Your task to perform on an android device: View the shopping cart on ebay. Search for logitech g pro on ebay, select the first entry, add it to the cart, then select checkout. Image 0: 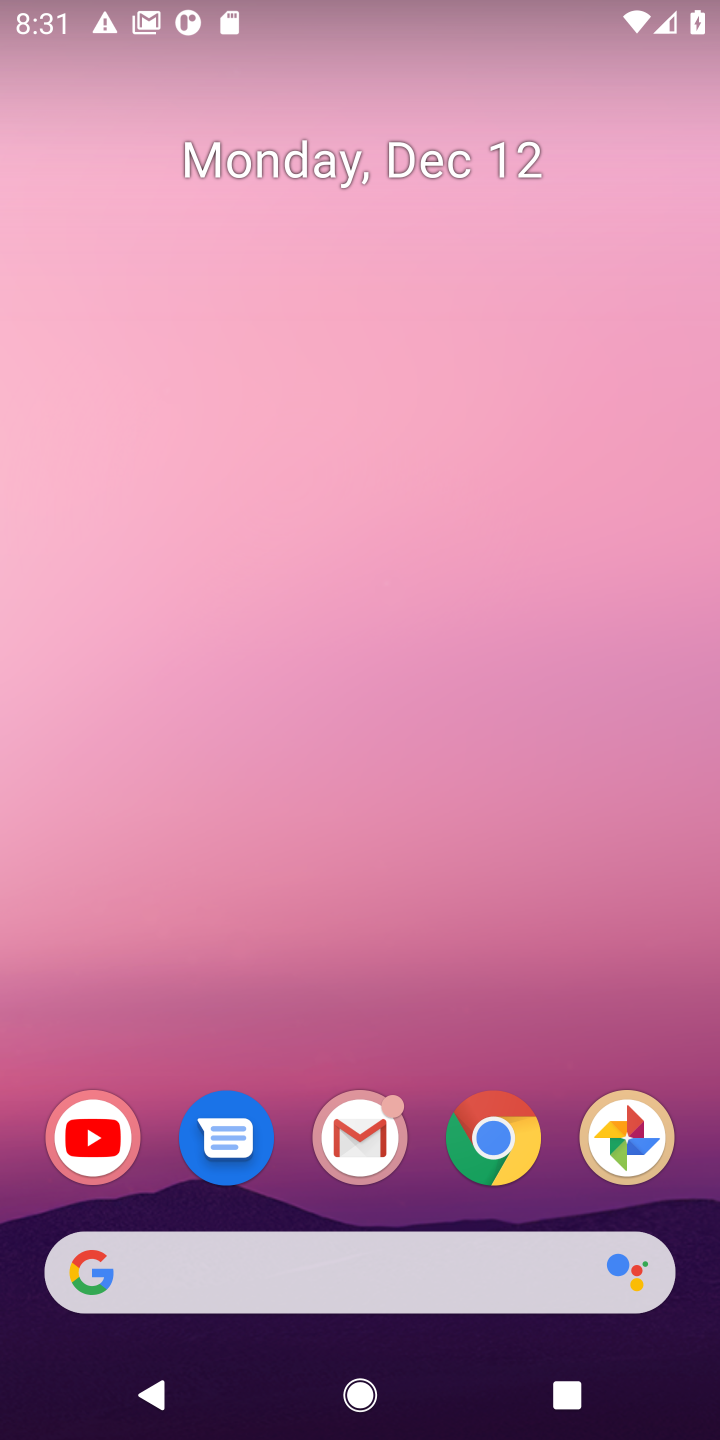
Step 0: drag from (286, 1199) to (258, 294)
Your task to perform on an android device: View the shopping cart on ebay. Search for logitech g pro on ebay, select the first entry, add it to the cart, then select checkout. Image 1: 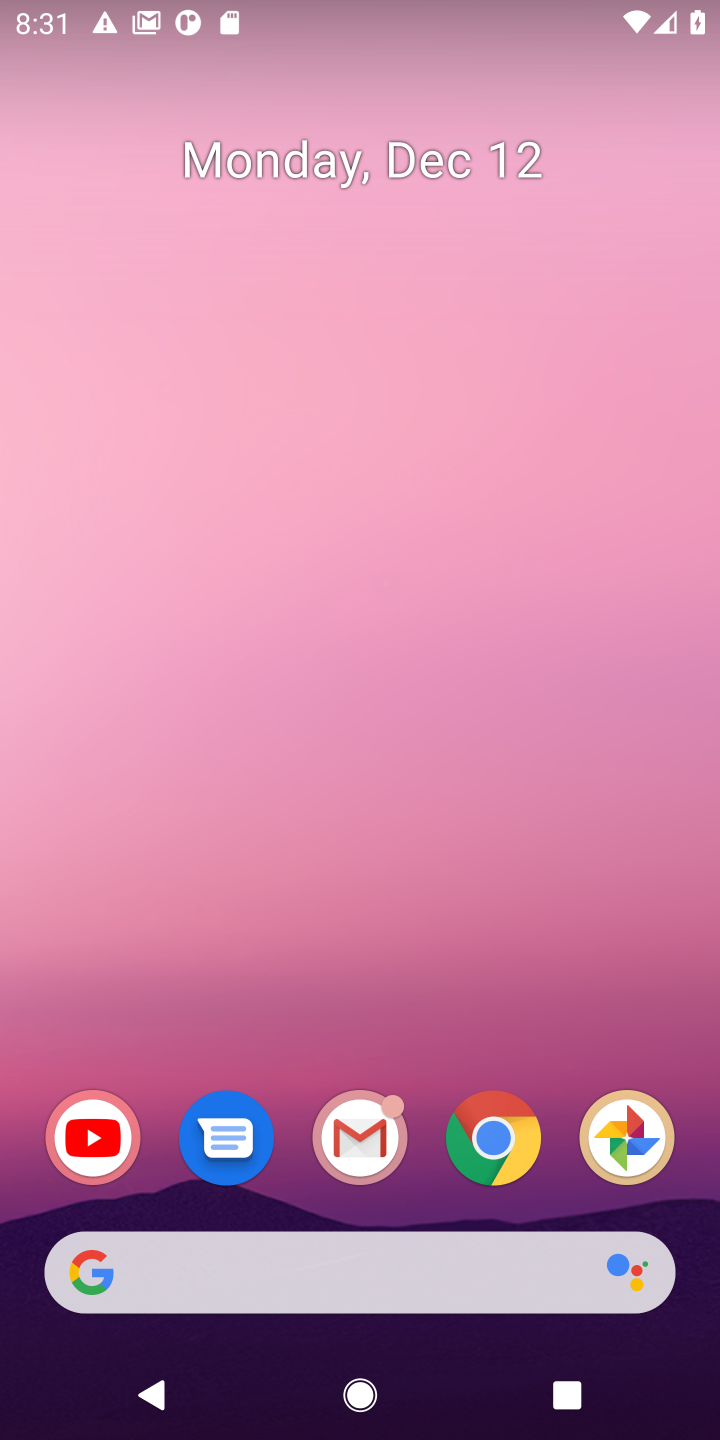
Step 1: drag from (268, 1183) to (503, 128)
Your task to perform on an android device: View the shopping cart on ebay. Search for logitech g pro on ebay, select the first entry, add it to the cart, then select checkout. Image 2: 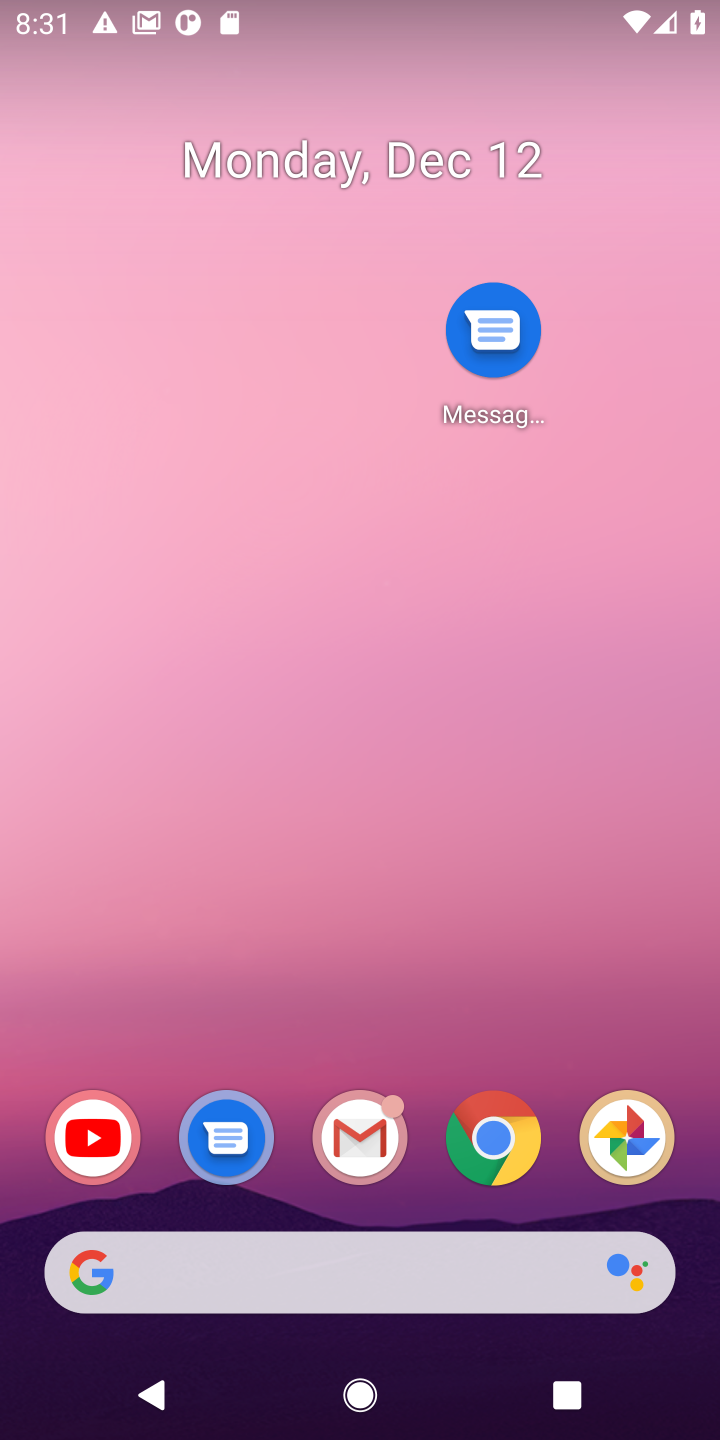
Step 2: drag from (324, 1053) to (357, 277)
Your task to perform on an android device: View the shopping cart on ebay. Search for logitech g pro on ebay, select the first entry, add it to the cart, then select checkout. Image 3: 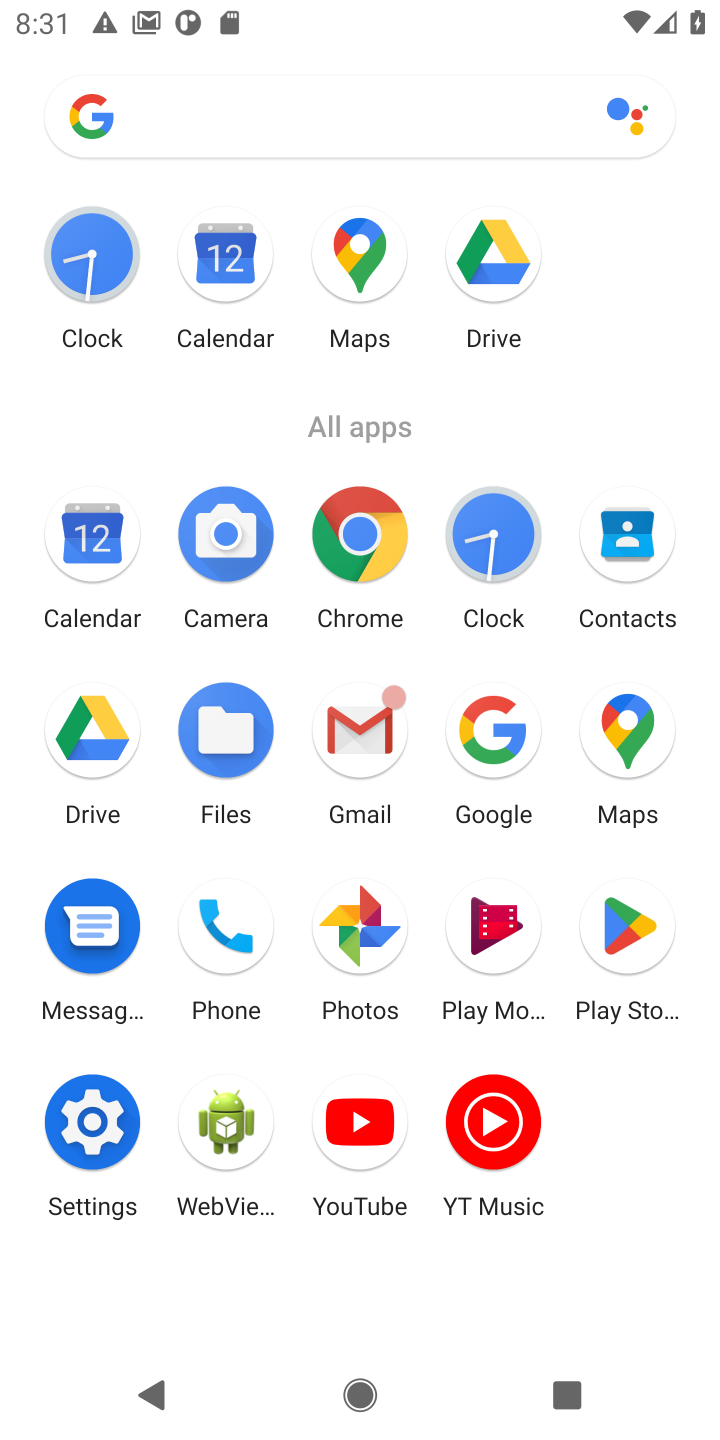
Step 3: click (484, 715)
Your task to perform on an android device: View the shopping cart on ebay. Search for logitech g pro on ebay, select the first entry, add it to the cart, then select checkout. Image 4: 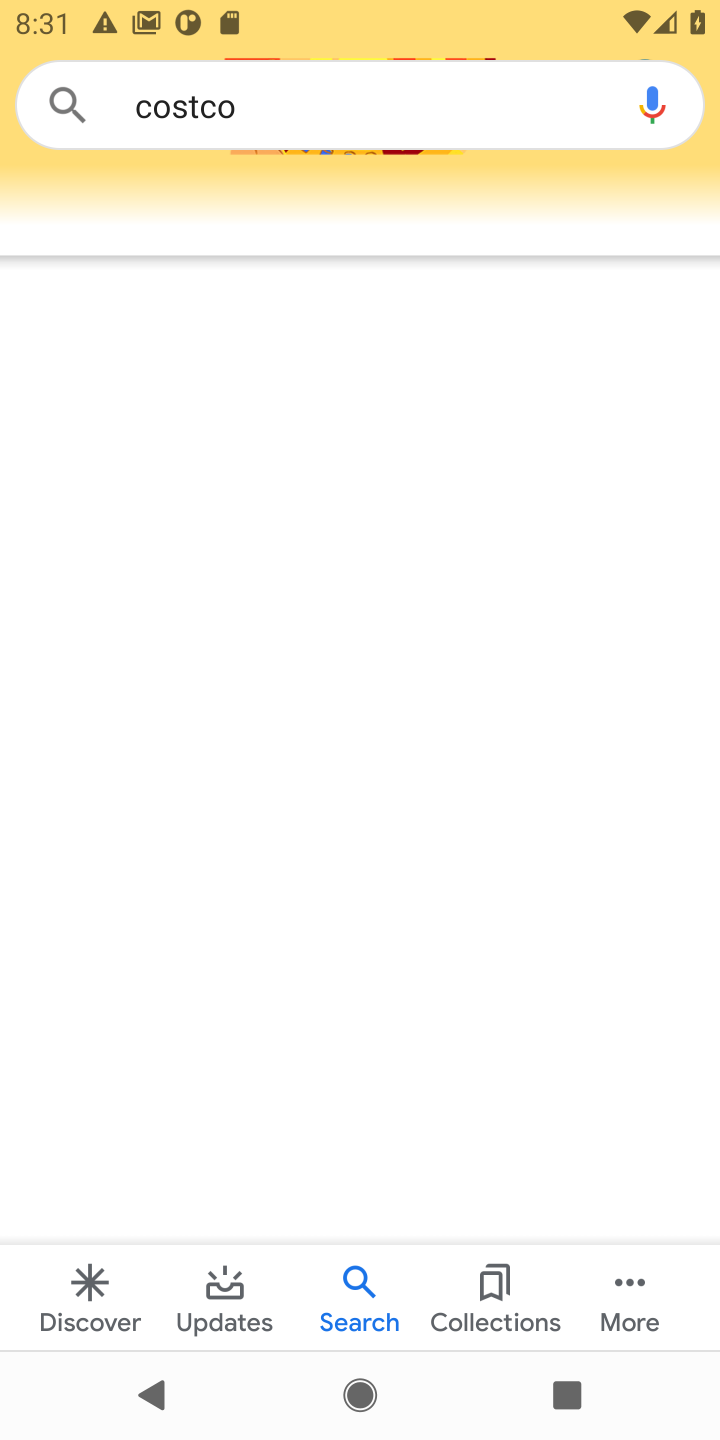
Step 4: click (202, 103)
Your task to perform on an android device: View the shopping cart on ebay. Search for logitech g pro on ebay, select the first entry, add it to the cart, then select checkout. Image 5: 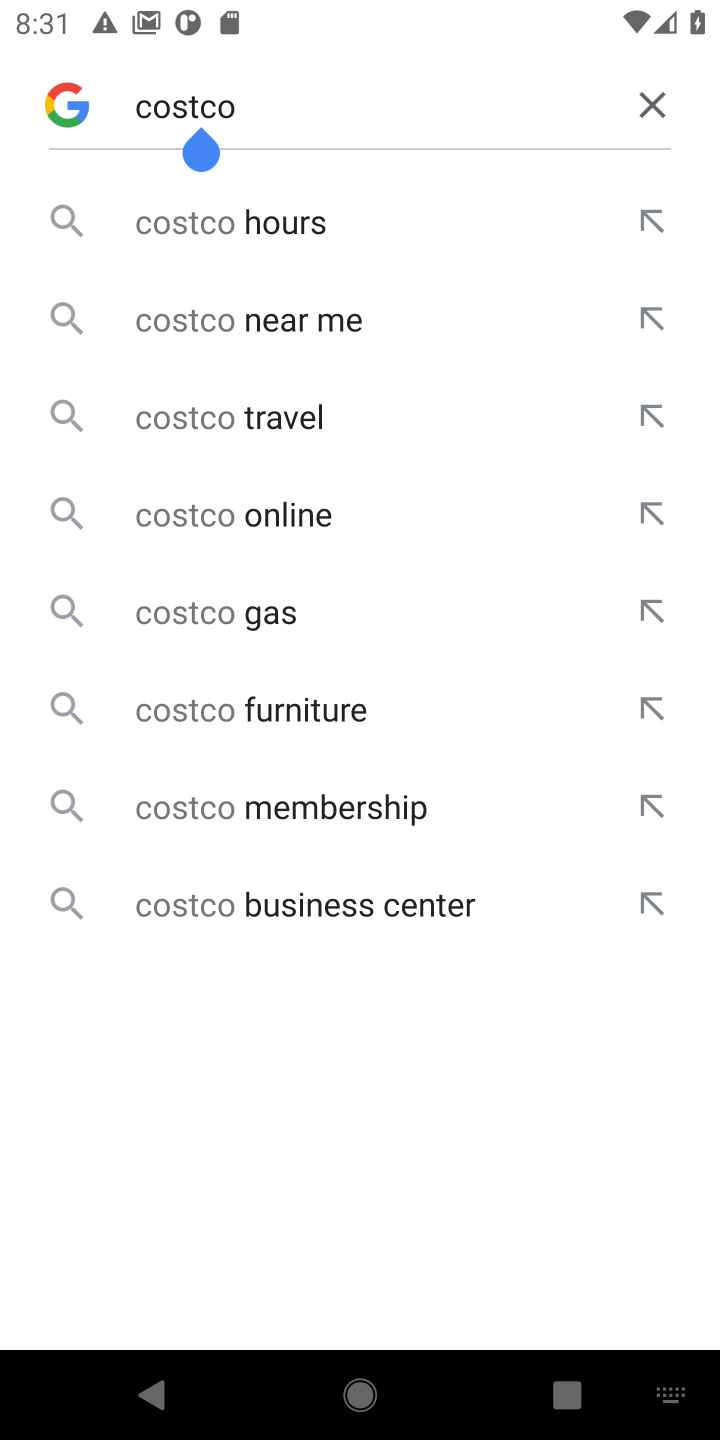
Step 5: click (646, 104)
Your task to perform on an android device: View the shopping cart on ebay. Search for logitech g pro on ebay, select the first entry, add it to the cart, then select checkout. Image 6: 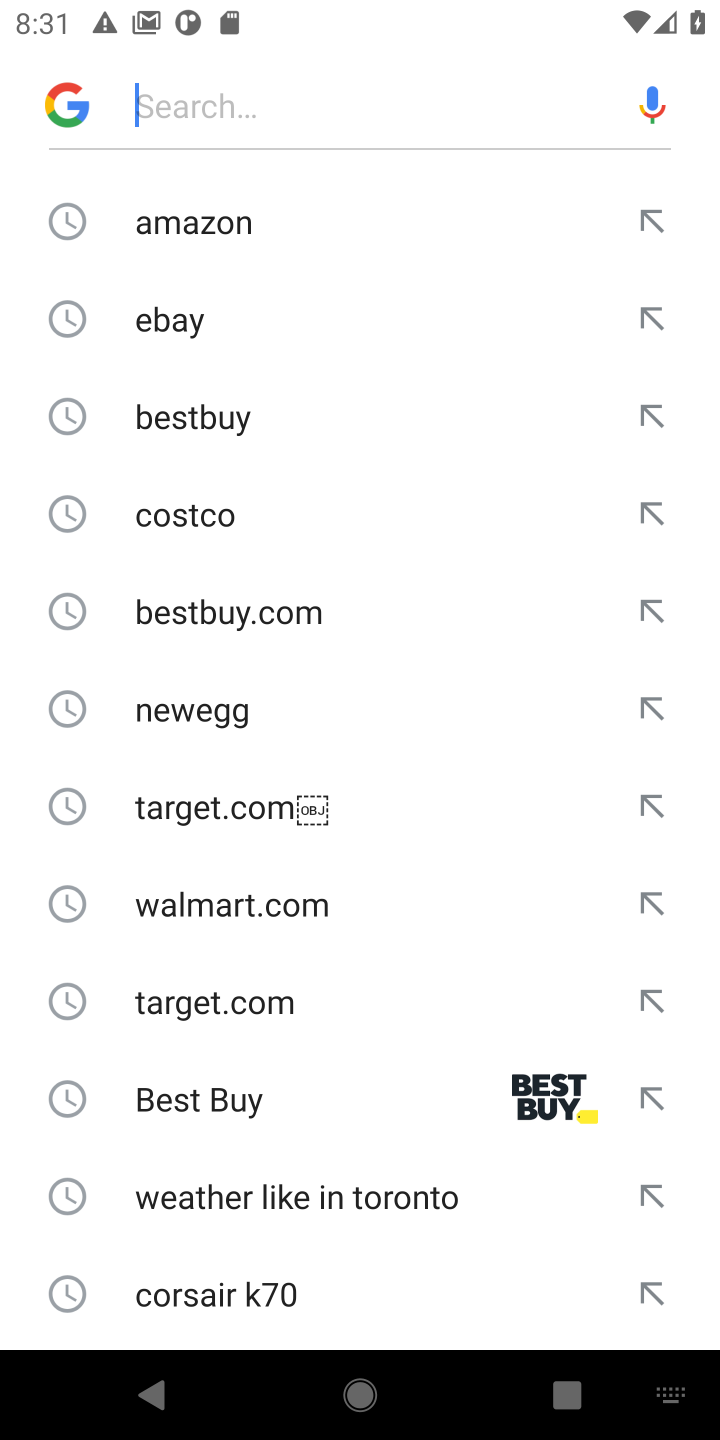
Step 6: click (158, 304)
Your task to perform on an android device: View the shopping cart on ebay. Search for logitech g pro on ebay, select the first entry, add it to the cart, then select checkout. Image 7: 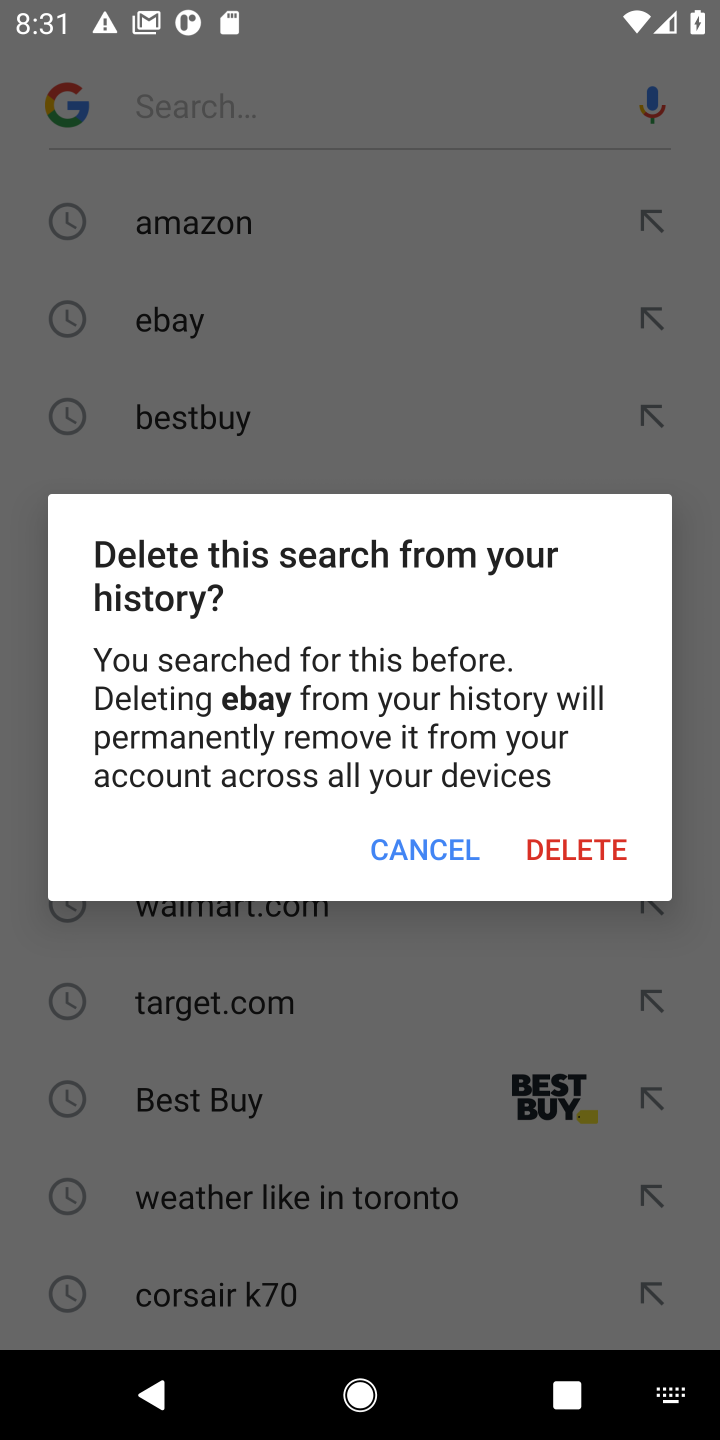
Step 7: click (401, 856)
Your task to perform on an android device: View the shopping cart on ebay. Search for logitech g pro on ebay, select the first entry, add it to the cart, then select checkout. Image 8: 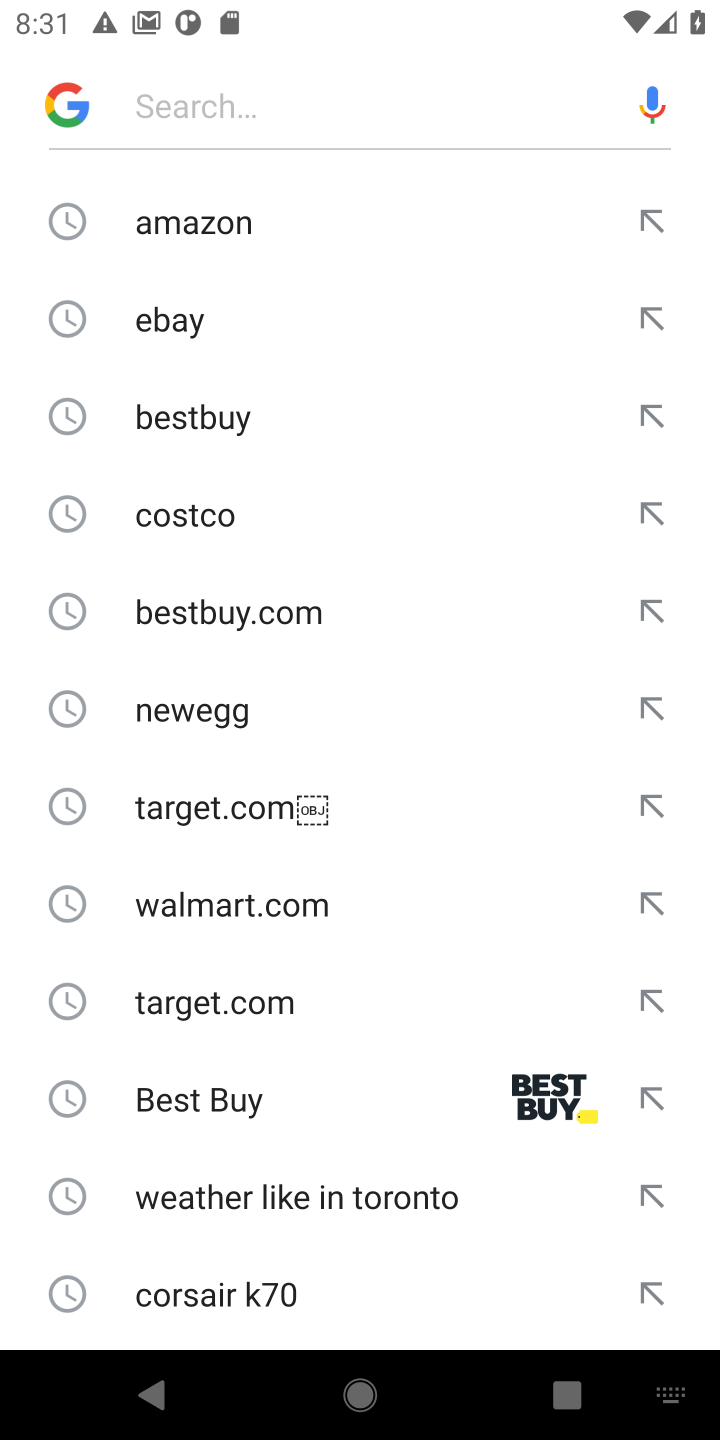
Step 8: click (162, 330)
Your task to perform on an android device: View the shopping cart on ebay. Search for logitech g pro on ebay, select the first entry, add it to the cart, then select checkout. Image 9: 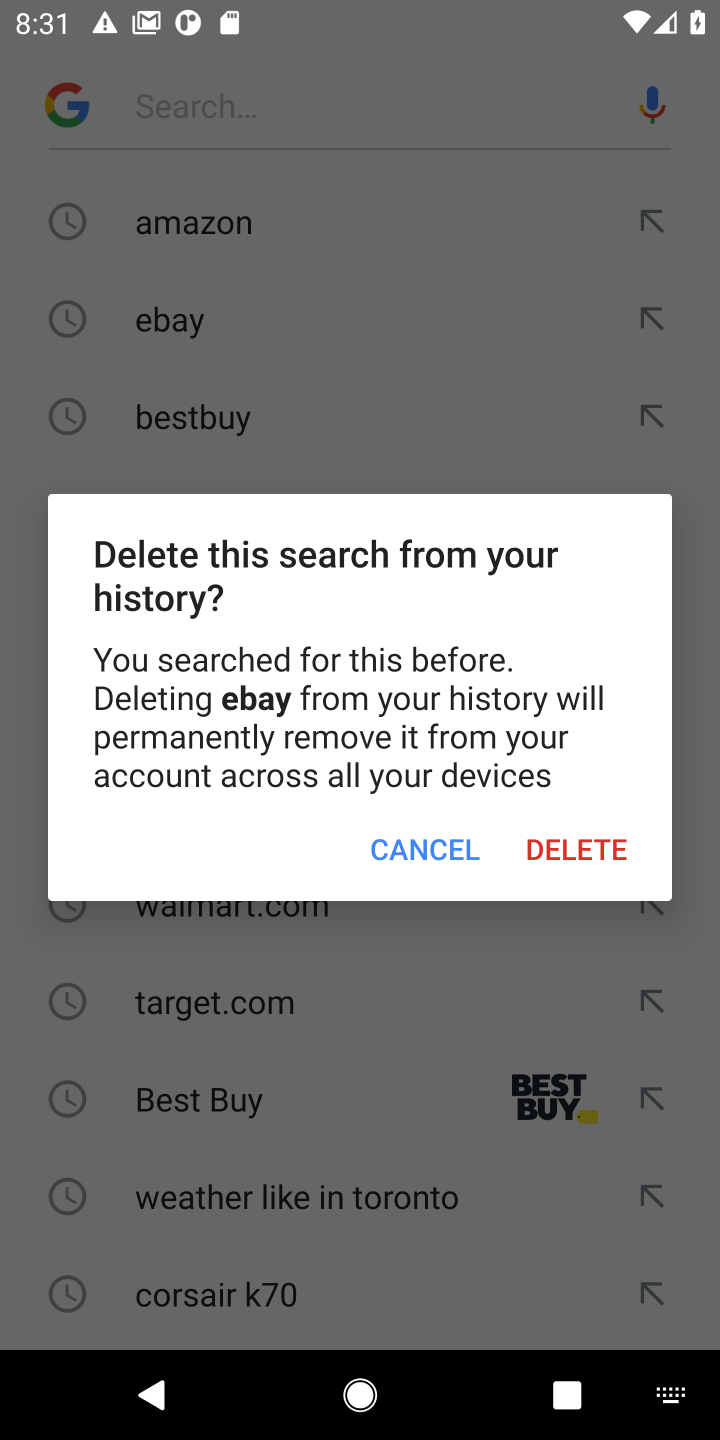
Step 9: click (415, 851)
Your task to perform on an android device: View the shopping cart on ebay. Search for logitech g pro on ebay, select the first entry, add it to the cart, then select checkout. Image 10: 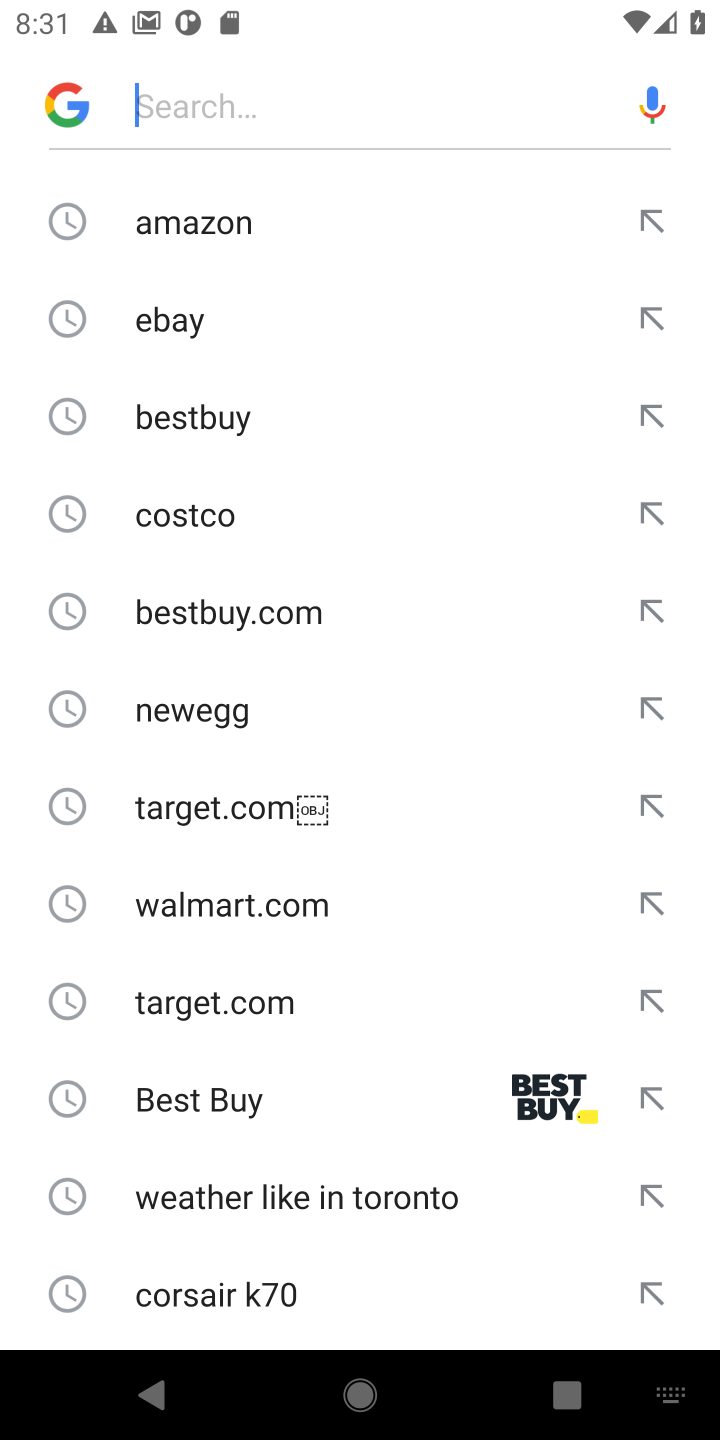
Step 10: click (664, 337)
Your task to perform on an android device: View the shopping cart on ebay. Search for logitech g pro on ebay, select the first entry, add it to the cart, then select checkout. Image 11: 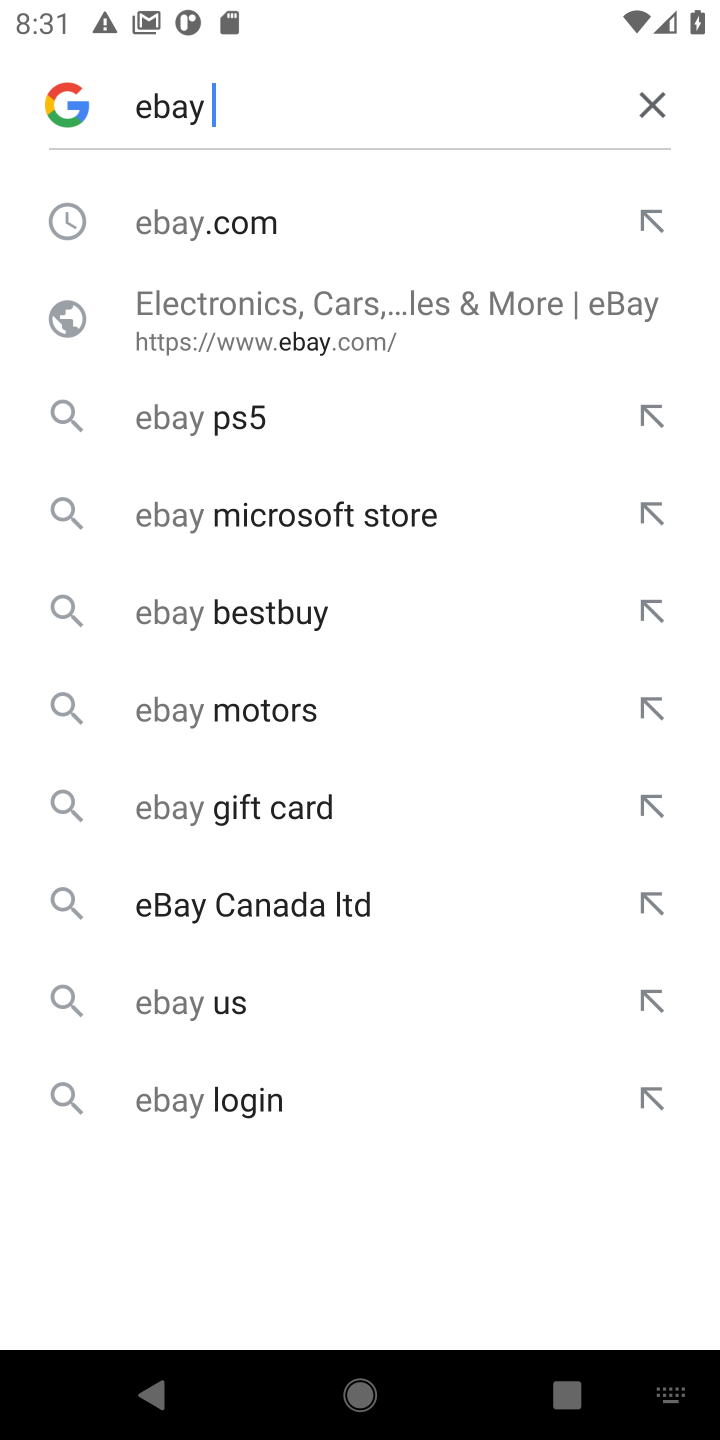
Step 11: click (285, 313)
Your task to perform on an android device: View the shopping cart on ebay. Search for logitech g pro on ebay, select the first entry, add it to the cart, then select checkout. Image 12: 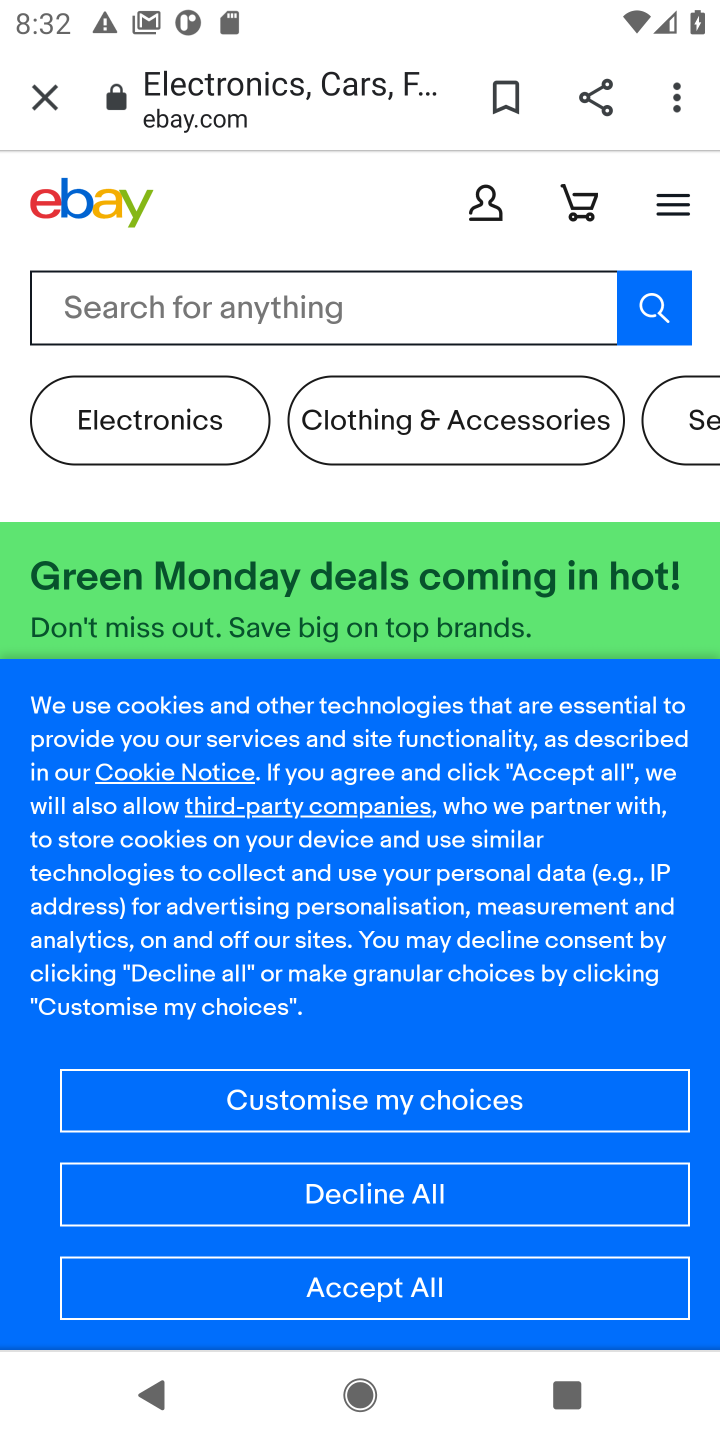
Step 12: click (84, 300)
Your task to perform on an android device: View the shopping cart on ebay. Search for logitech g pro on ebay, select the first entry, add it to the cart, then select checkout. Image 13: 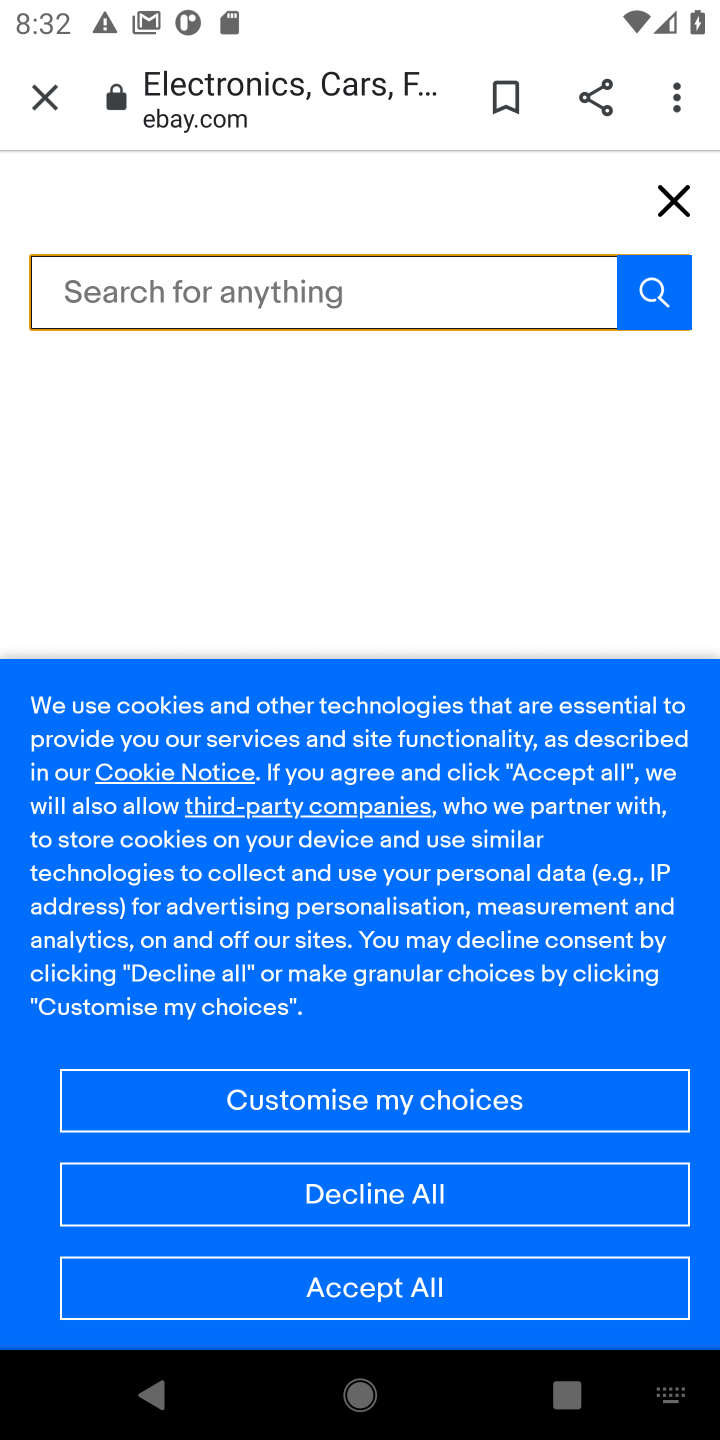
Step 13: type "logitech g pro"
Your task to perform on an android device: View the shopping cart on ebay. Search for logitech g pro on ebay, select the first entry, add it to the cart, then select checkout. Image 14: 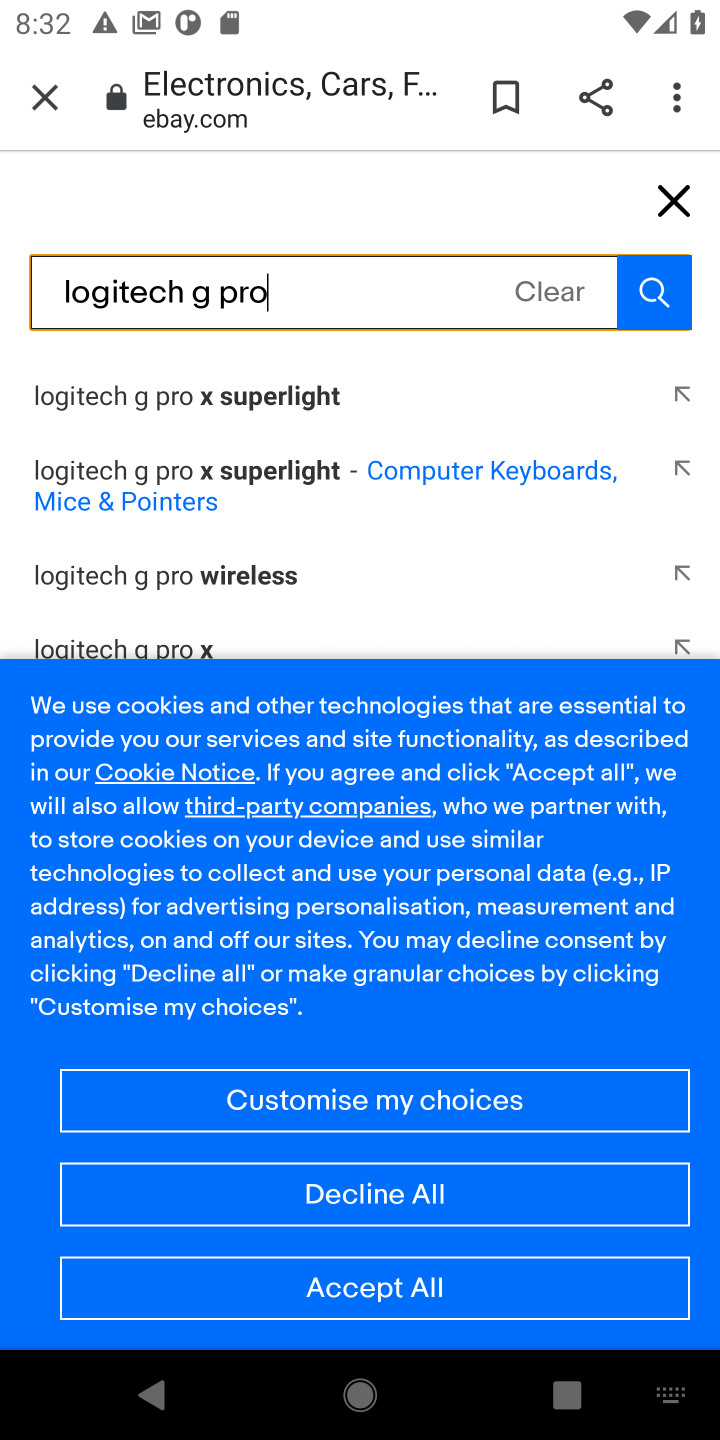
Step 14: click (151, 409)
Your task to perform on an android device: View the shopping cart on ebay. Search for logitech g pro on ebay, select the first entry, add it to the cart, then select checkout. Image 15: 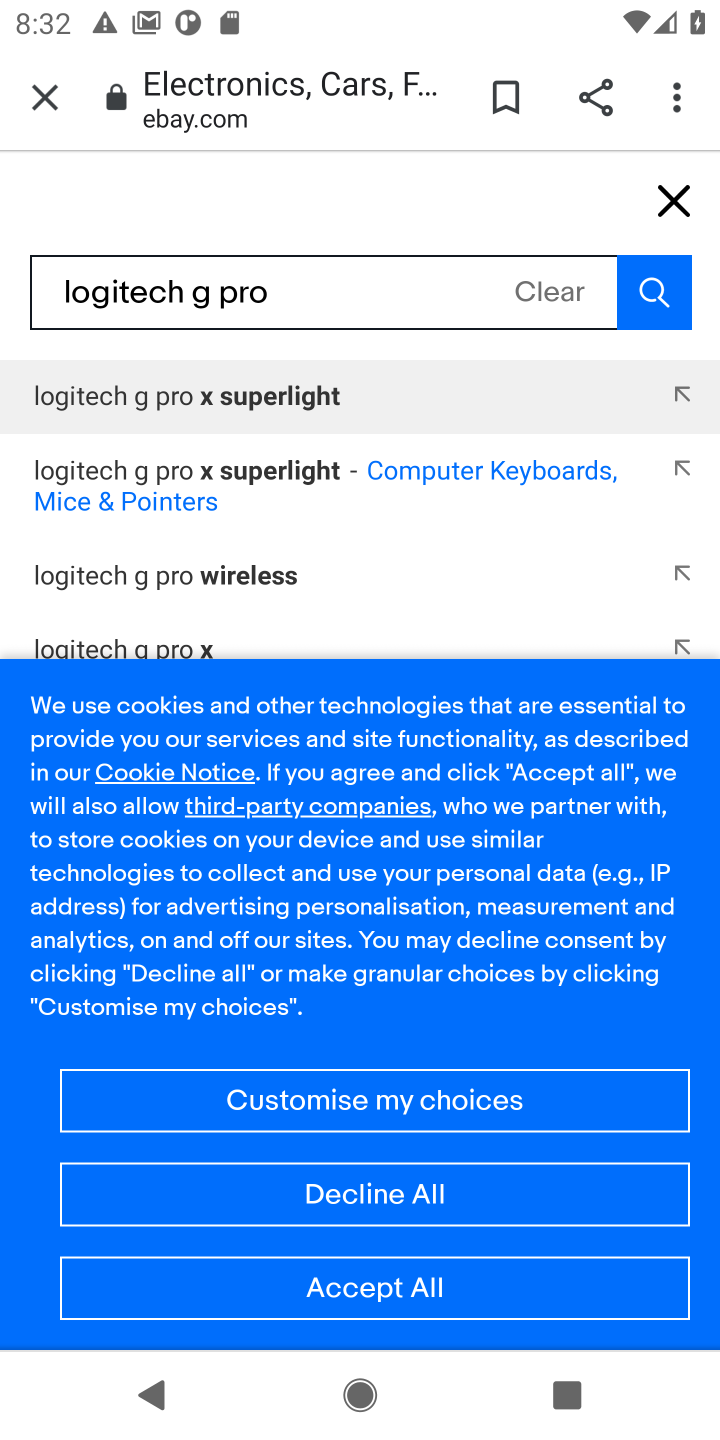
Step 15: click (336, 405)
Your task to perform on an android device: View the shopping cart on ebay. Search for logitech g pro on ebay, select the first entry, add it to the cart, then select checkout. Image 16: 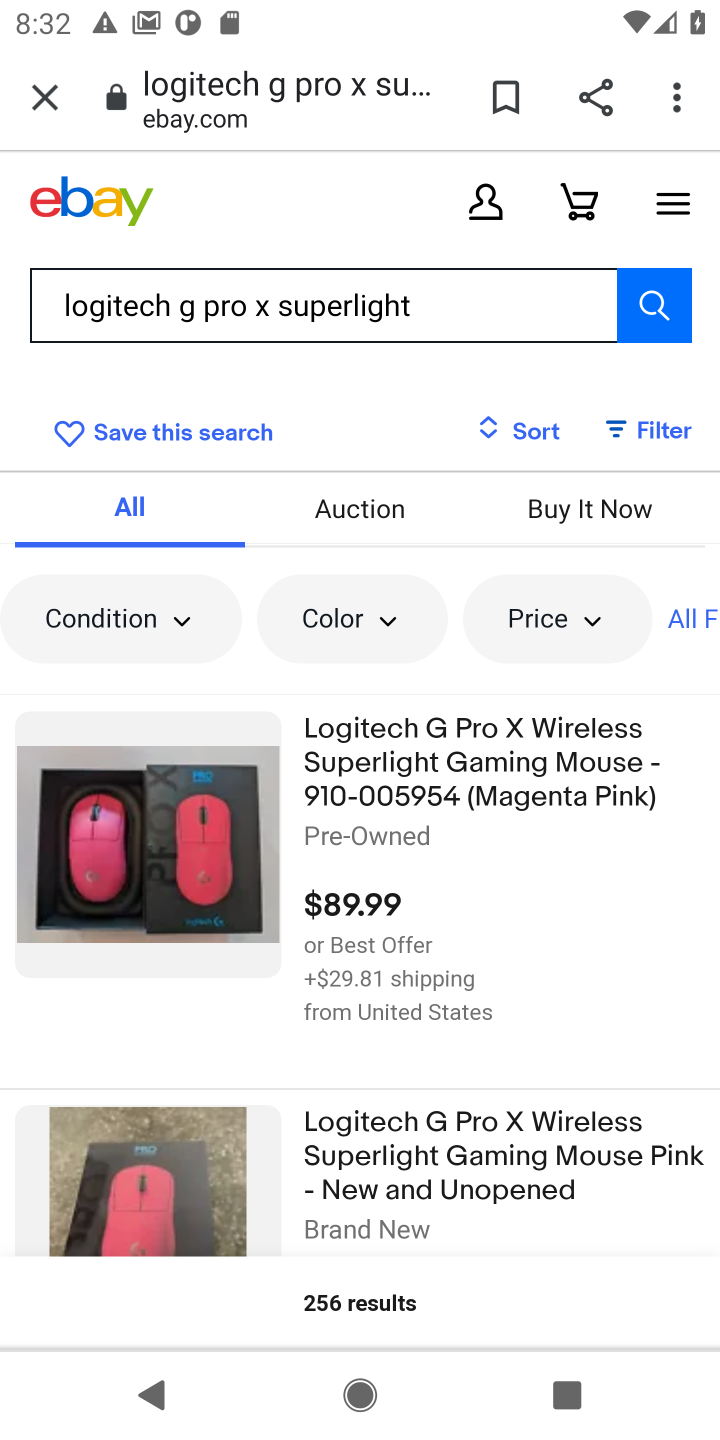
Step 16: click (436, 770)
Your task to perform on an android device: View the shopping cart on ebay. Search for logitech g pro on ebay, select the first entry, add it to the cart, then select checkout. Image 17: 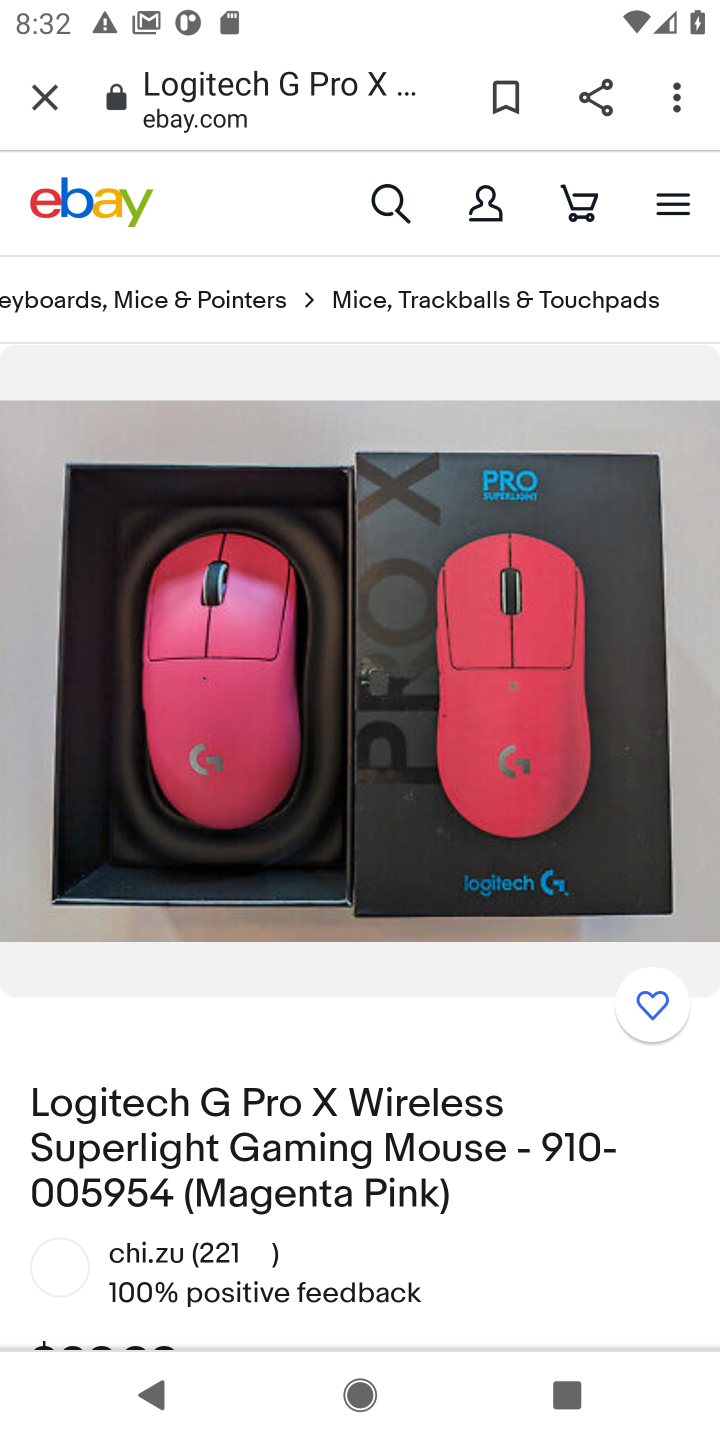
Step 17: drag from (538, 1187) to (543, 470)
Your task to perform on an android device: View the shopping cart on ebay. Search for logitech g pro on ebay, select the first entry, add it to the cart, then select checkout. Image 18: 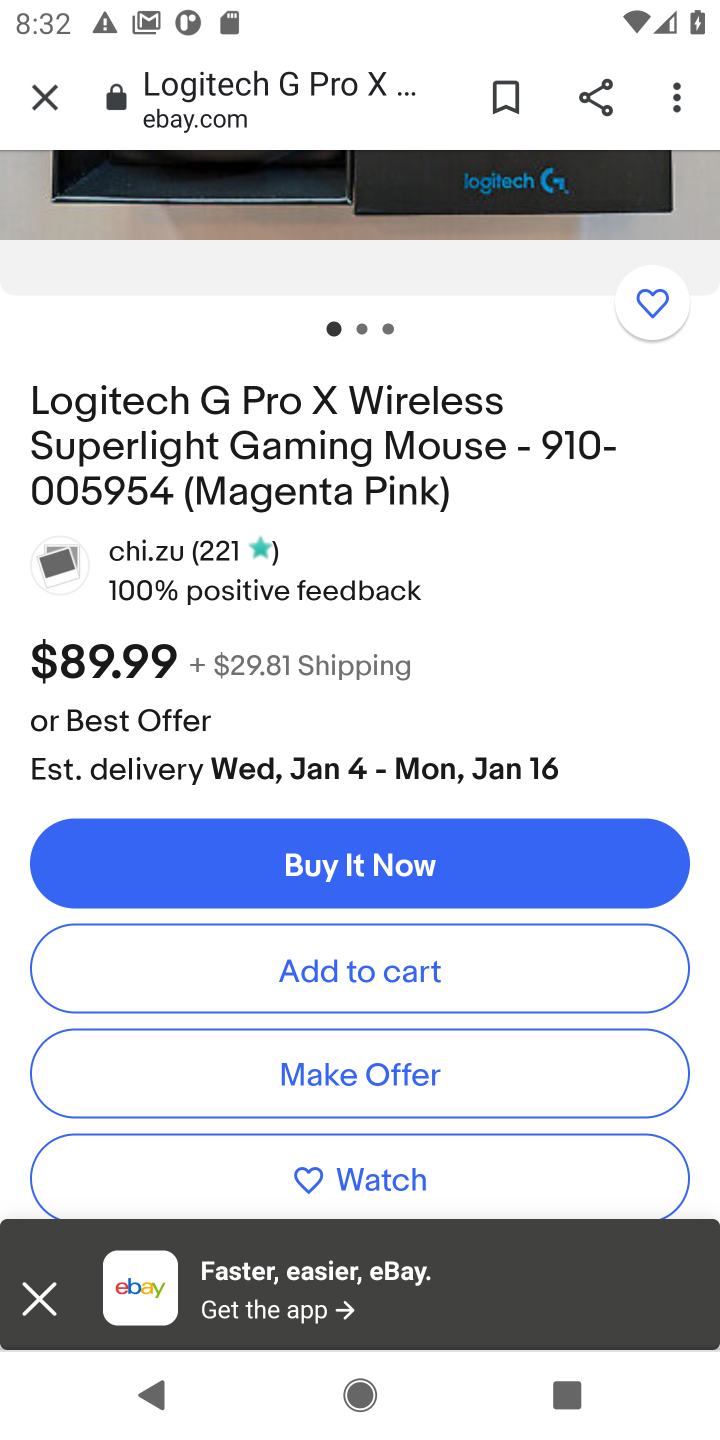
Step 18: click (371, 967)
Your task to perform on an android device: View the shopping cart on ebay. Search for logitech g pro on ebay, select the first entry, add it to the cart, then select checkout. Image 19: 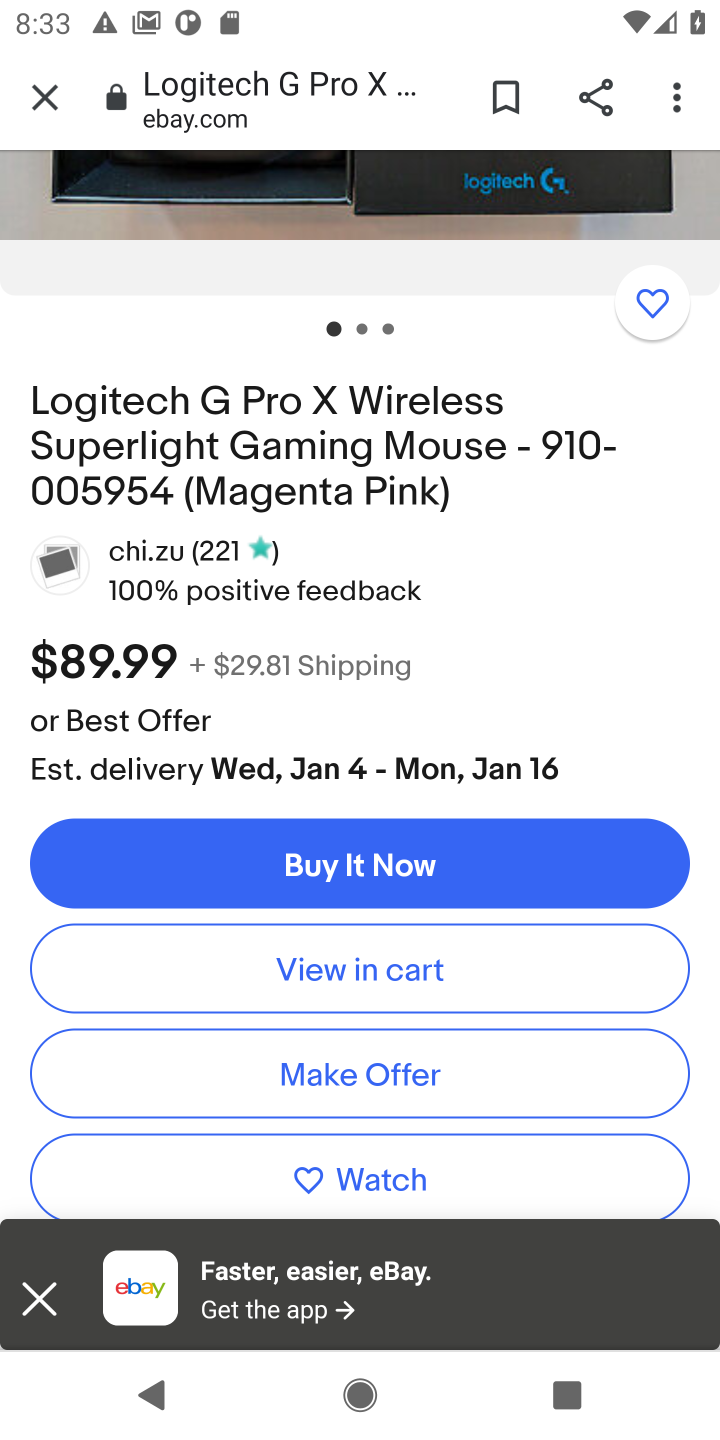
Step 19: click (413, 968)
Your task to perform on an android device: View the shopping cart on ebay. Search for logitech g pro on ebay, select the first entry, add it to the cart, then select checkout. Image 20: 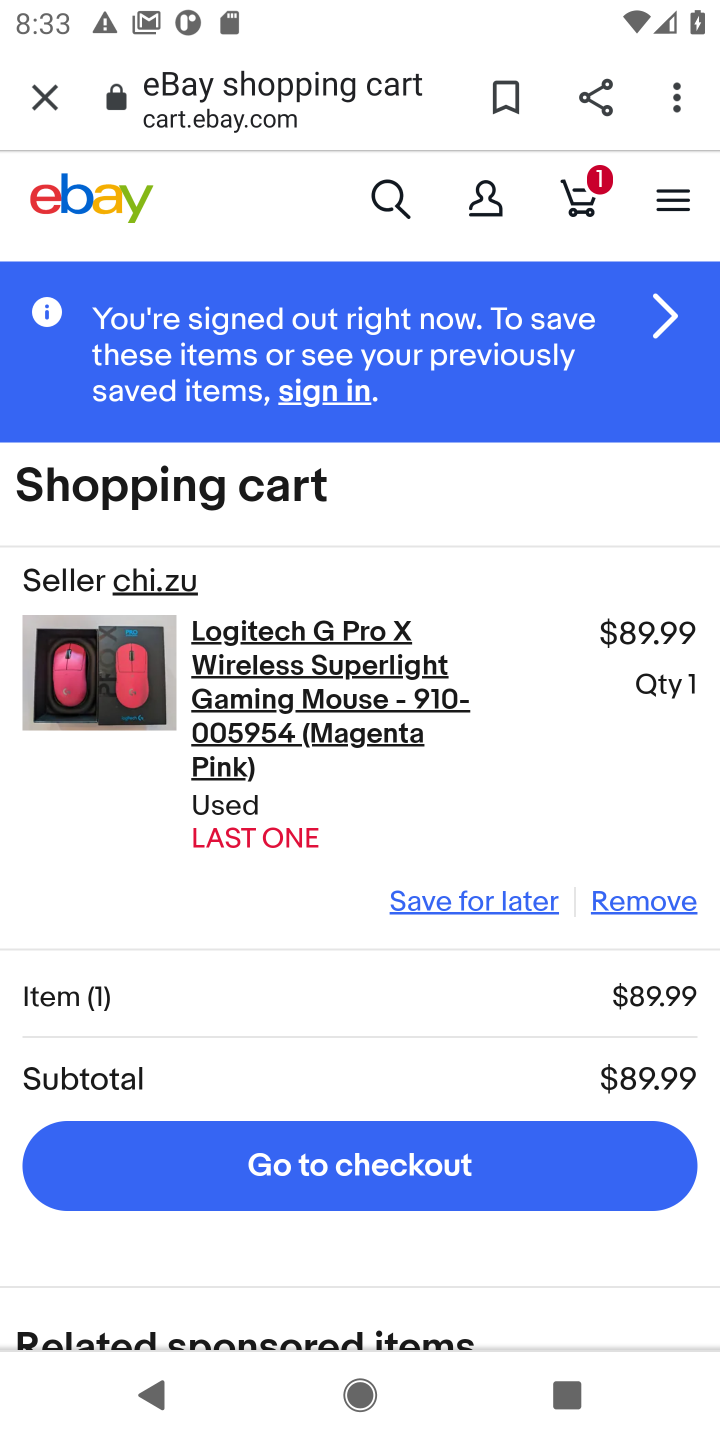
Step 20: click (350, 1170)
Your task to perform on an android device: View the shopping cart on ebay. Search for logitech g pro on ebay, select the first entry, add it to the cart, then select checkout. Image 21: 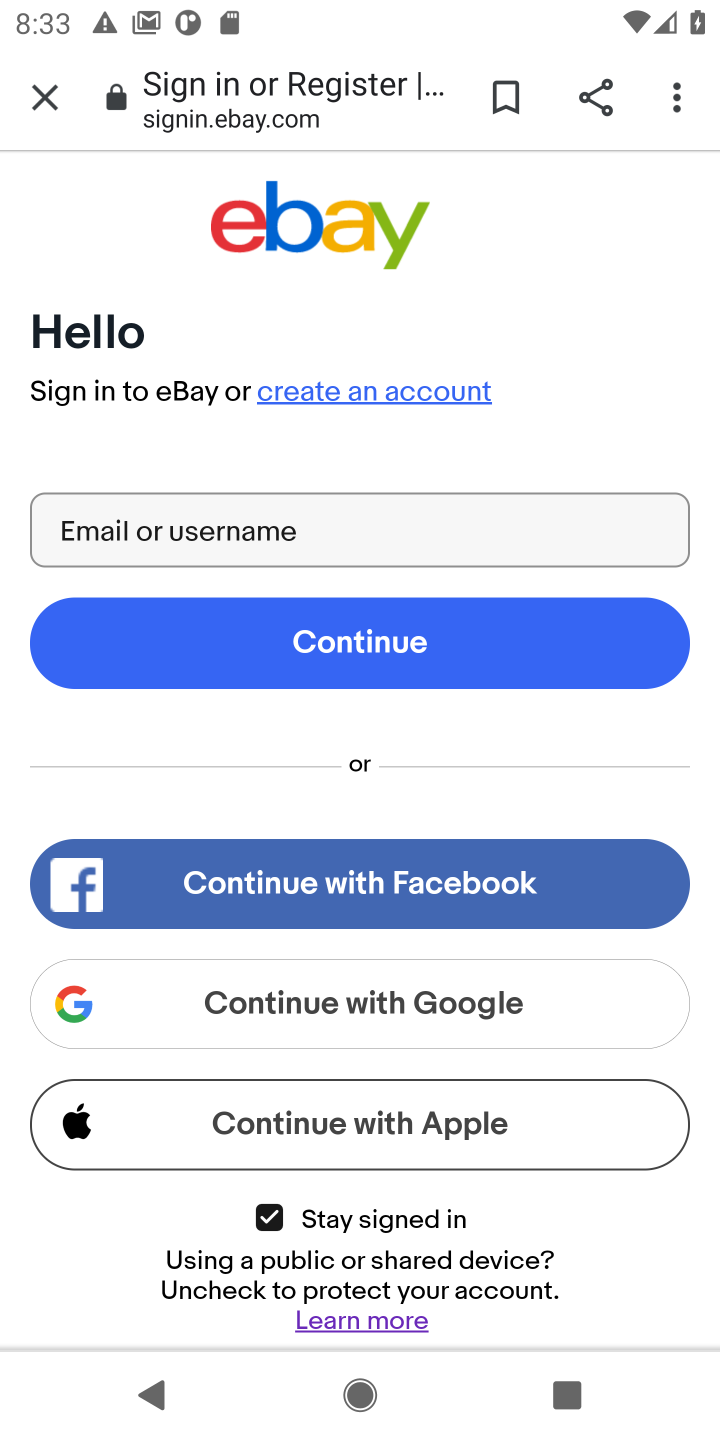
Step 21: task complete